Your task to perform on an android device: Open Youtube and go to the subscriptions tab Image 0: 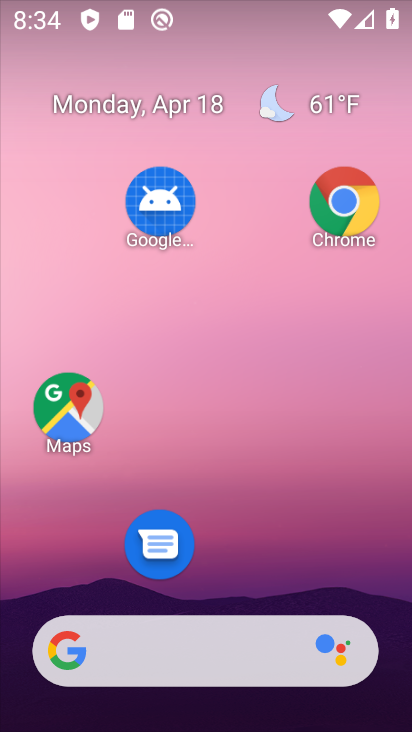
Step 0: drag from (219, 593) to (260, 33)
Your task to perform on an android device: Open Youtube and go to the subscriptions tab Image 1: 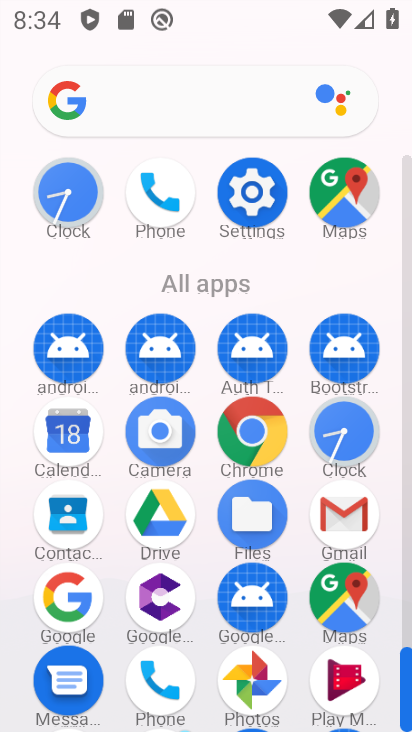
Step 1: drag from (304, 631) to (307, 184)
Your task to perform on an android device: Open Youtube and go to the subscriptions tab Image 2: 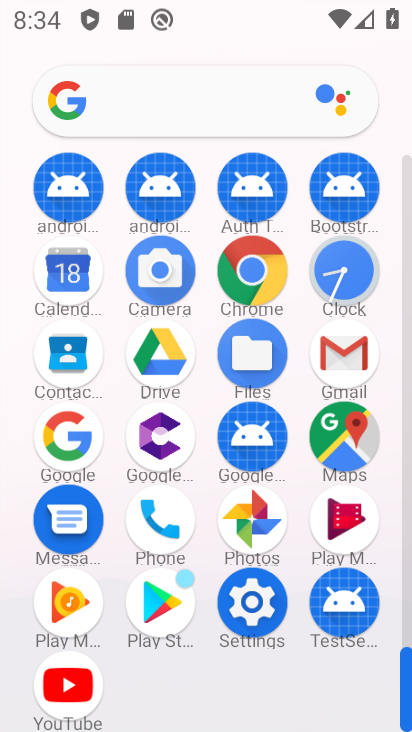
Step 2: click (71, 671)
Your task to perform on an android device: Open Youtube and go to the subscriptions tab Image 3: 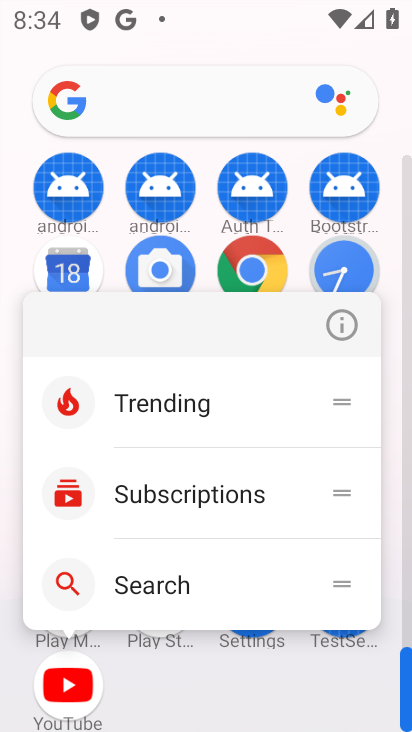
Step 3: click (145, 502)
Your task to perform on an android device: Open Youtube and go to the subscriptions tab Image 4: 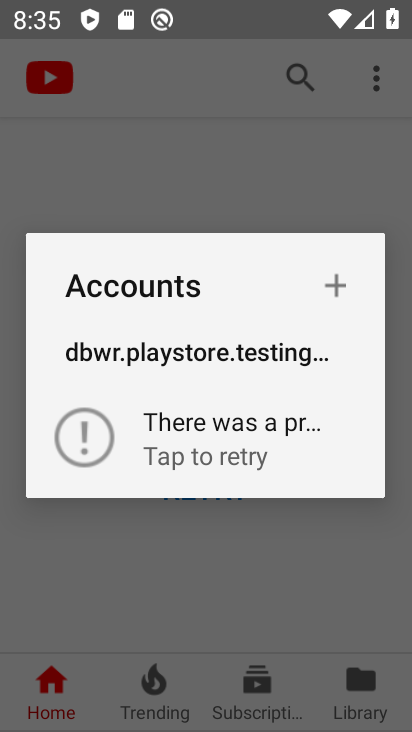
Step 4: click (154, 359)
Your task to perform on an android device: Open Youtube and go to the subscriptions tab Image 5: 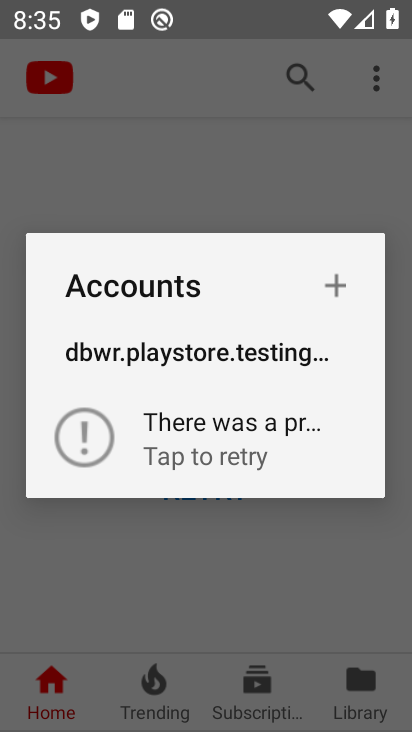
Step 5: click (176, 433)
Your task to perform on an android device: Open Youtube and go to the subscriptions tab Image 6: 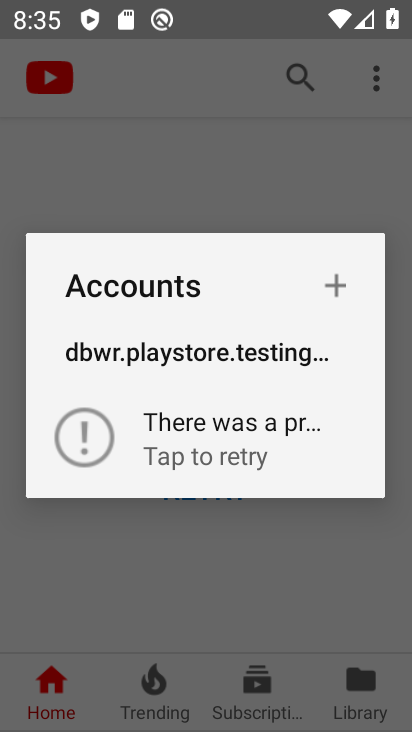
Step 6: click (220, 544)
Your task to perform on an android device: Open Youtube and go to the subscriptions tab Image 7: 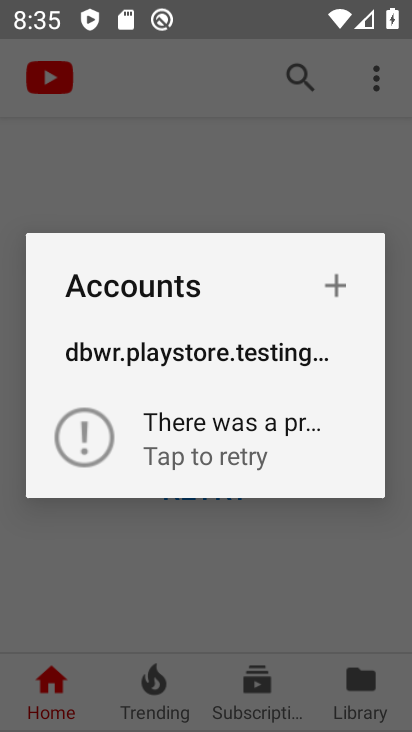
Step 7: click (46, 682)
Your task to perform on an android device: Open Youtube and go to the subscriptions tab Image 8: 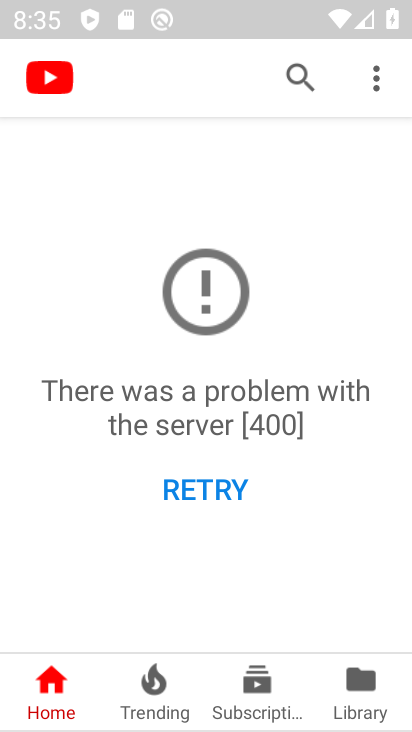
Step 8: click (262, 661)
Your task to perform on an android device: Open Youtube and go to the subscriptions tab Image 9: 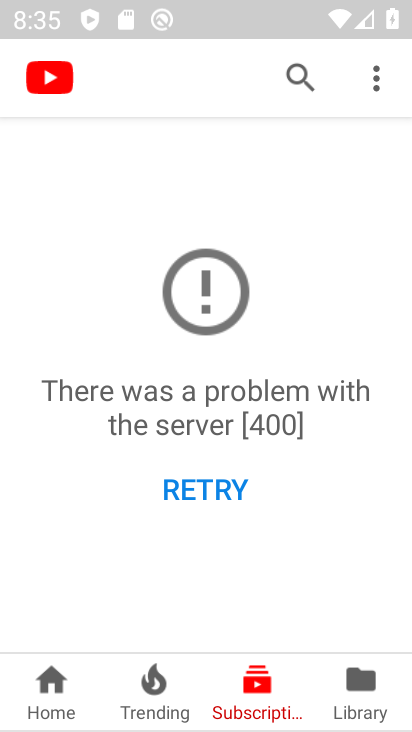
Step 9: task complete